Your task to perform on an android device: turn on notifications settings in the gmail app Image 0: 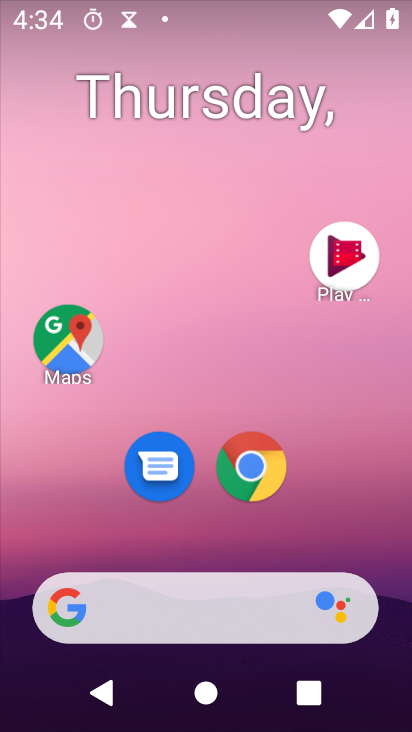
Step 0: drag from (309, 590) to (366, 4)
Your task to perform on an android device: turn on notifications settings in the gmail app Image 1: 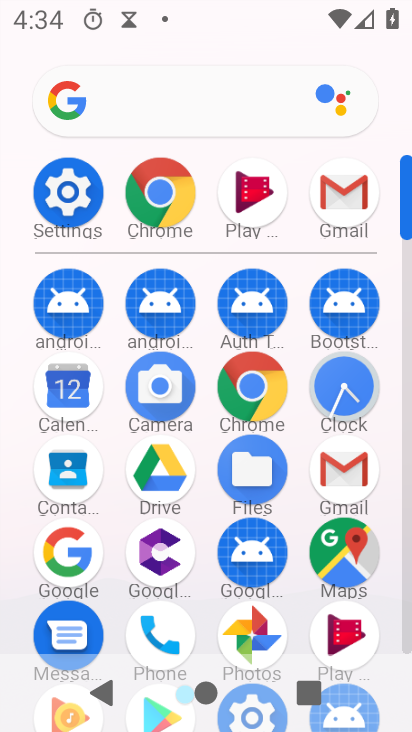
Step 1: click (350, 453)
Your task to perform on an android device: turn on notifications settings in the gmail app Image 2: 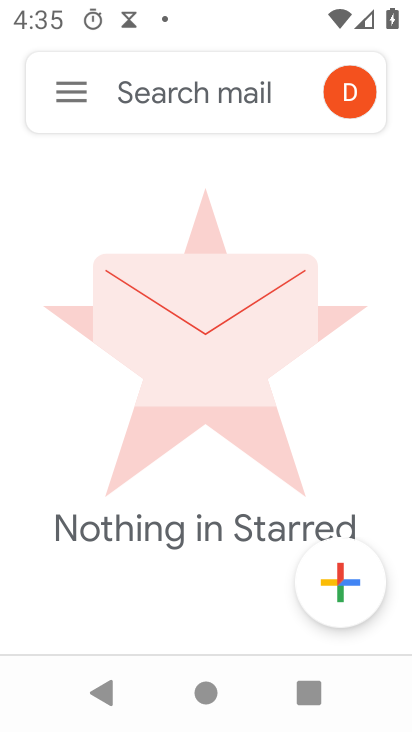
Step 2: click (68, 99)
Your task to perform on an android device: turn on notifications settings in the gmail app Image 3: 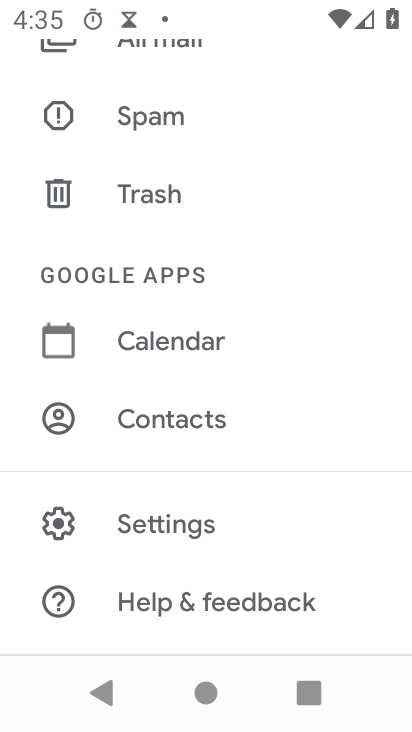
Step 3: drag from (254, 392) to (294, 691)
Your task to perform on an android device: turn on notifications settings in the gmail app Image 4: 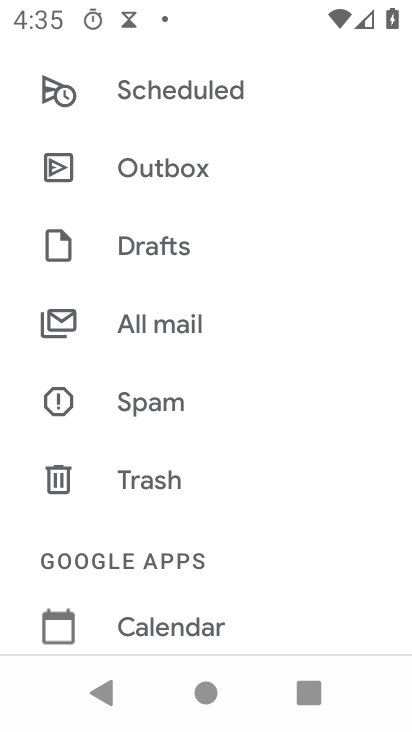
Step 4: drag from (221, 267) to (319, 671)
Your task to perform on an android device: turn on notifications settings in the gmail app Image 5: 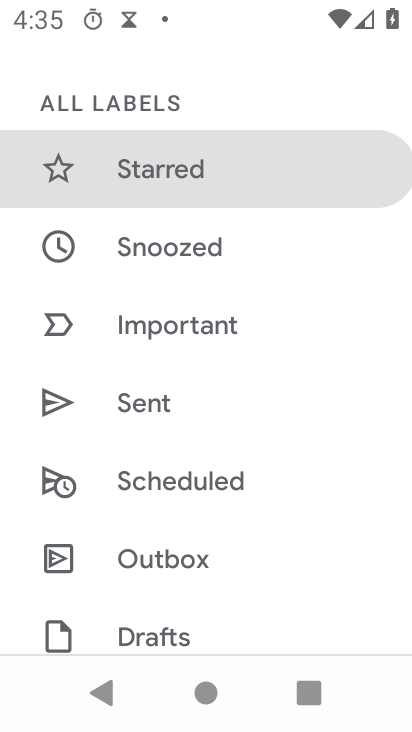
Step 5: drag from (193, 520) to (237, 67)
Your task to perform on an android device: turn on notifications settings in the gmail app Image 6: 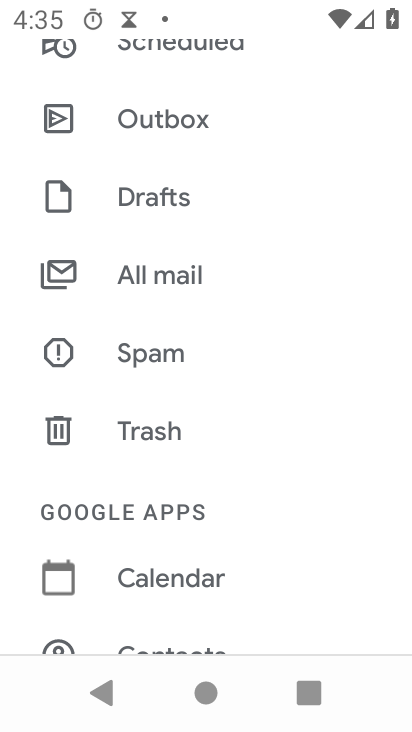
Step 6: drag from (286, 553) to (285, 43)
Your task to perform on an android device: turn on notifications settings in the gmail app Image 7: 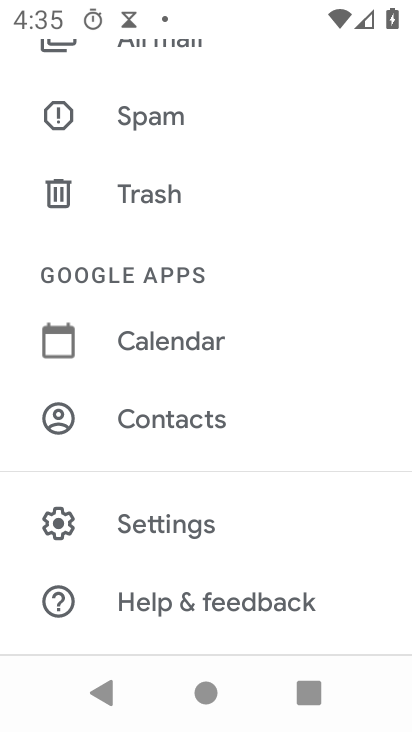
Step 7: click (244, 522)
Your task to perform on an android device: turn on notifications settings in the gmail app Image 8: 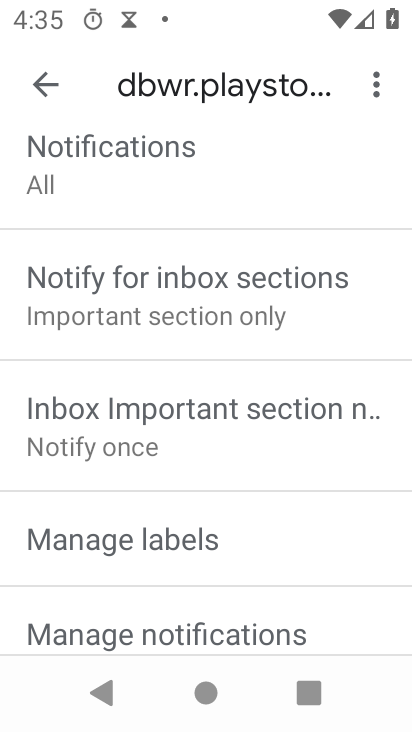
Step 8: drag from (237, 611) to (249, 278)
Your task to perform on an android device: turn on notifications settings in the gmail app Image 9: 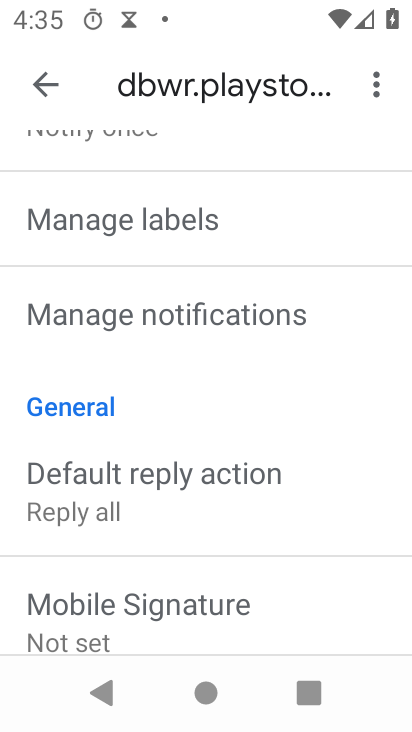
Step 9: click (168, 525)
Your task to perform on an android device: turn on notifications settings in the gmail app Image 10: 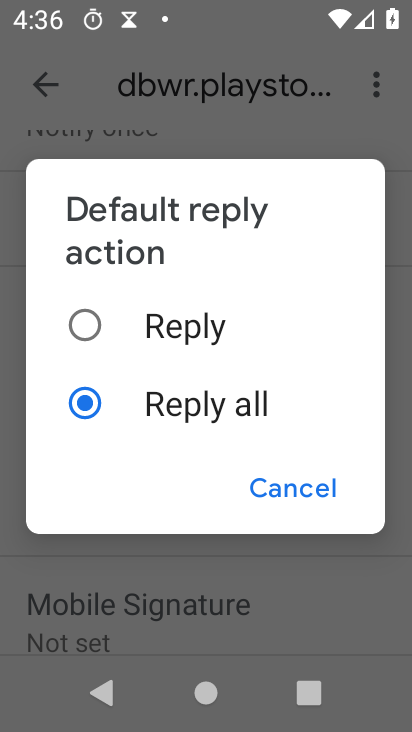
Step 10: click (277, 495)
Your task to perform on an android device: turn on notifications settings in the gmail app Image 11: 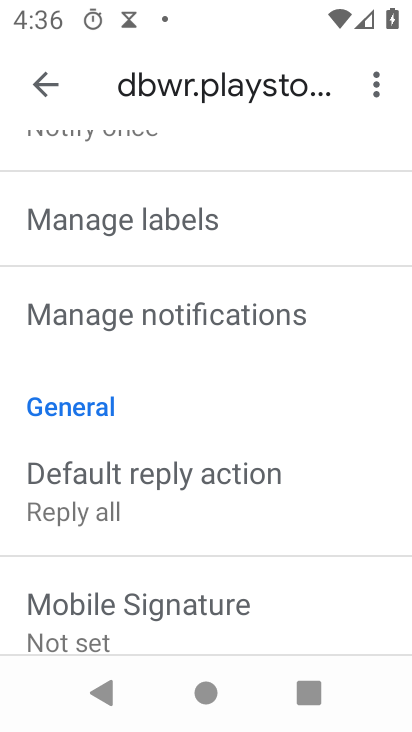
Step 11: drag from (260, 369) to (291, 521)
Your task to perform on an android device: turn on notifications settings in the gmail app Image 12: 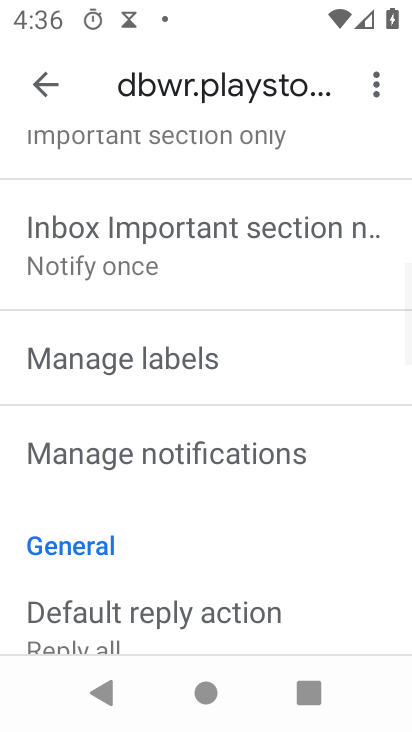
Step 12: click (282, 451)
Your task to perform on an android device: turn on notifications settings in the gmail app Image 13: 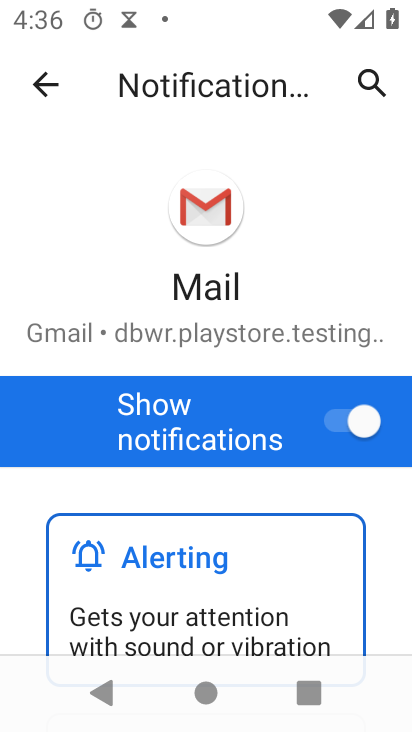
Step 13: task complete